Your task to perform on an android device: Search for pizza restaurants on Maps Image 0: 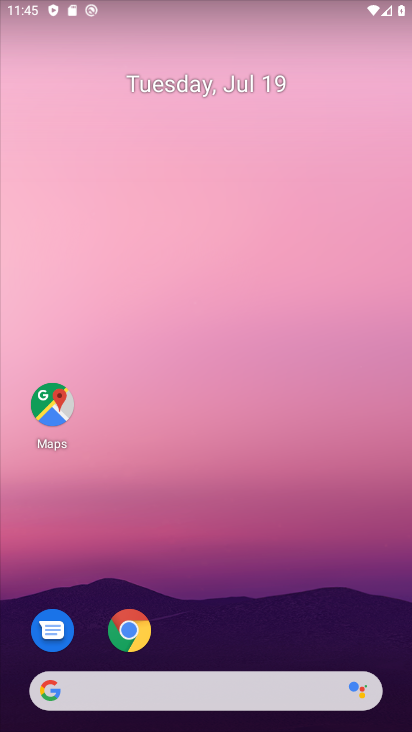
Step 0: drag from (141, 210) to (161, 344)
Your task to perform on an android device: Search for pizza restaurants on Maps Image 1: 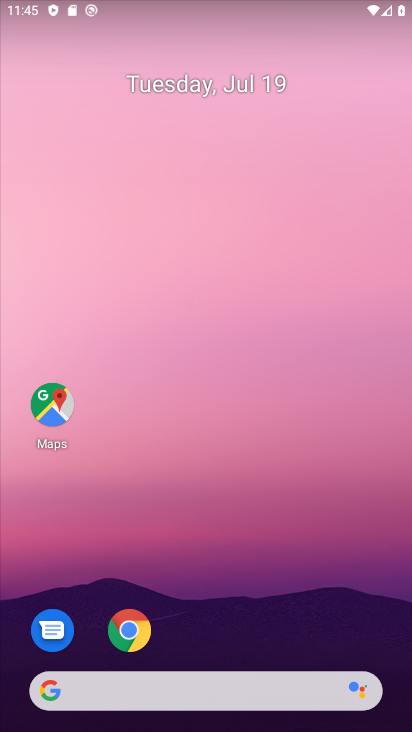
Step 1: drag from (247, 700) to (184, 269)
Your task to perform on an android device: Search for pizza restaurants on Maps Image 2: 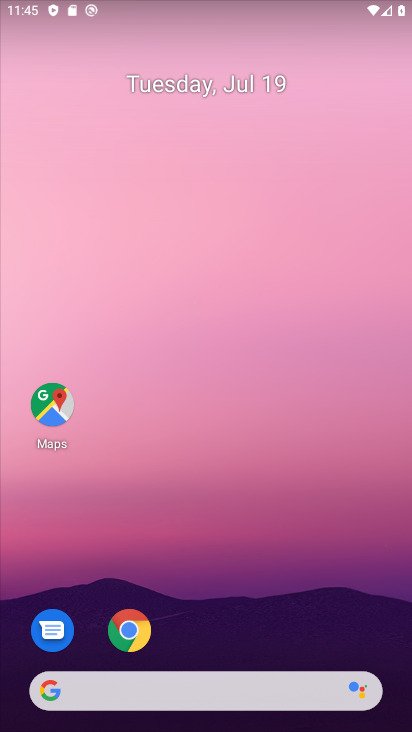
Step 2: drag from (197, 587) to (159, 261)
Your task to perform on an android device: Search for pizza restaurants on Maps Image 3: 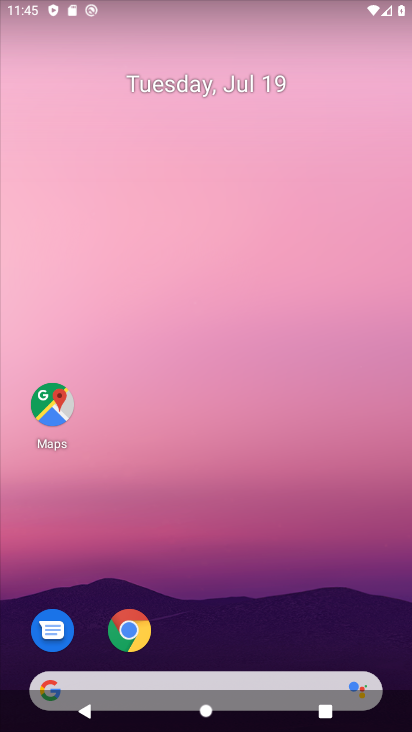
Step 3: drag from (211, 446) to (197, 33)
Your task to perform on an android device: Search for pizza restaurants on Maps Image 4: 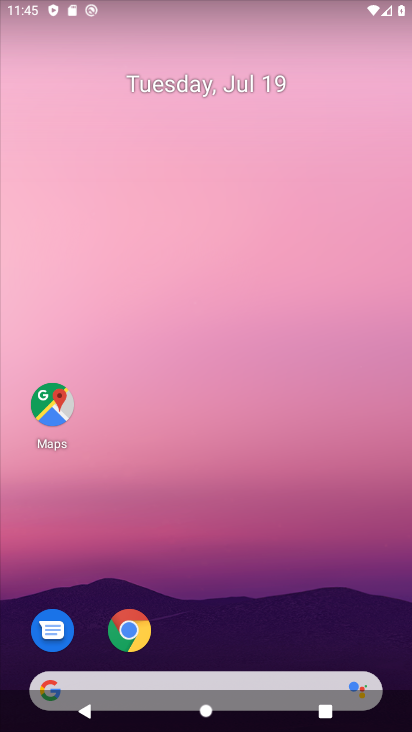
Step 4: drag from (308, 517) to (238, 79)
Your task to perform on an android device: Search for pizza restaurants on Maps Image 5: 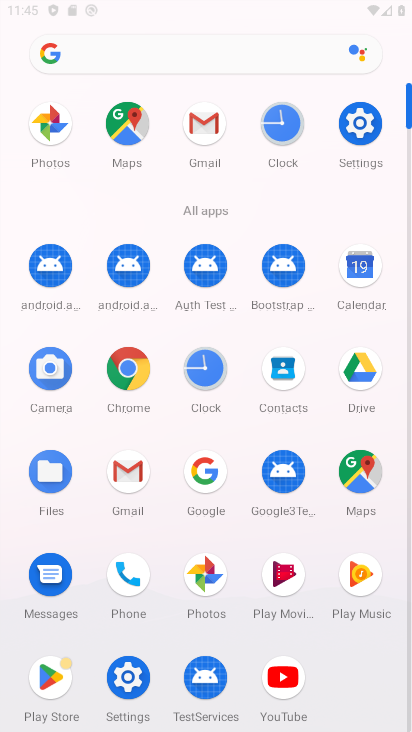
Step 5: drag from (183, 384) to (179, 139)
Your task to perform on an android device: Search for pizza restaurants on Maps Image 6: 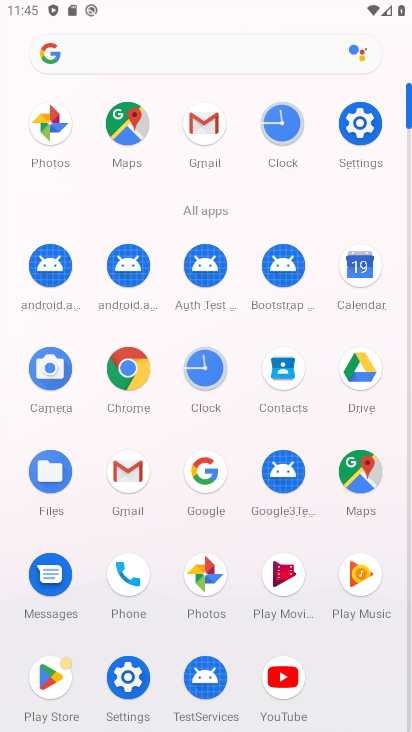
Step 6: drag from (193, 485) to (193, 200)
Your task to perform on an android device: Search for pizza restaurants on Maps Image 7: 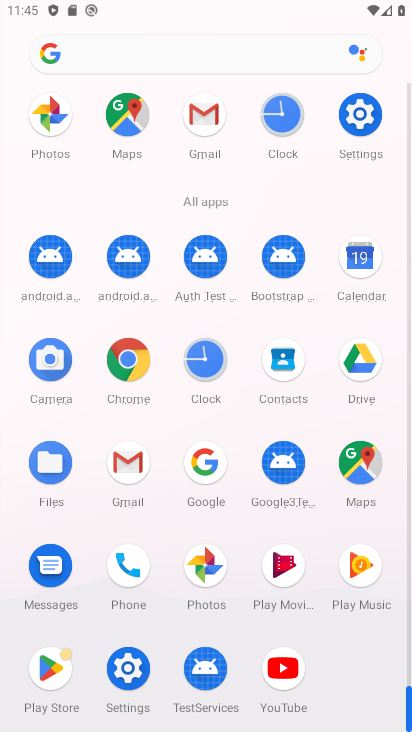
Step 7: click (361, 461)
Your task to perform on an android device: Search for pizza restaurants on Maps Image 8: 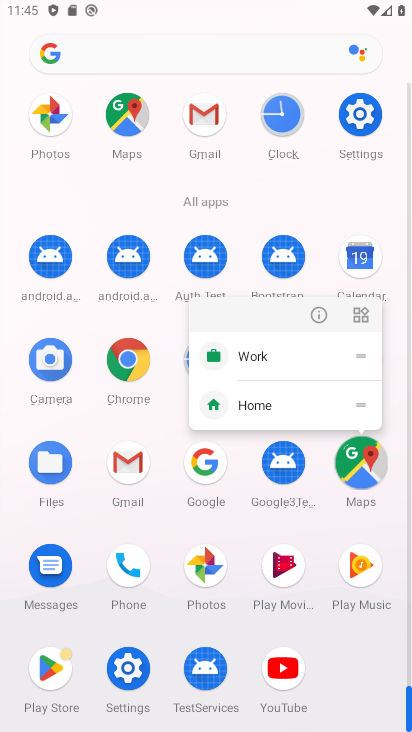
Step 8: click (363, 483)
Your task to perform on an android device: Search for pizza restaurants on Maps Image 9: 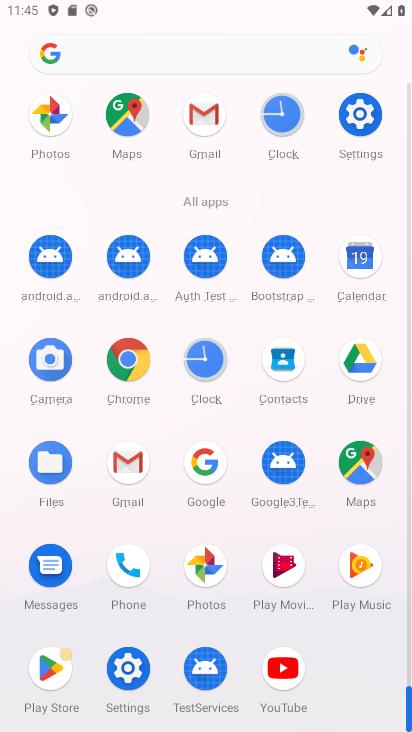
Step 9: click (364, 460)
Your task to perform on an android device: Search for pizza restaurants on Maps Image 10: 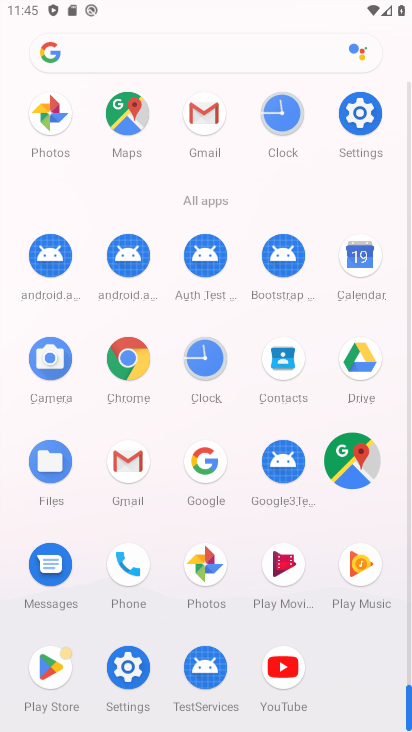
Step 10: click (365, 448)
Your task to perform on an android device: Search for pizza restaurants on Maps Image 11: 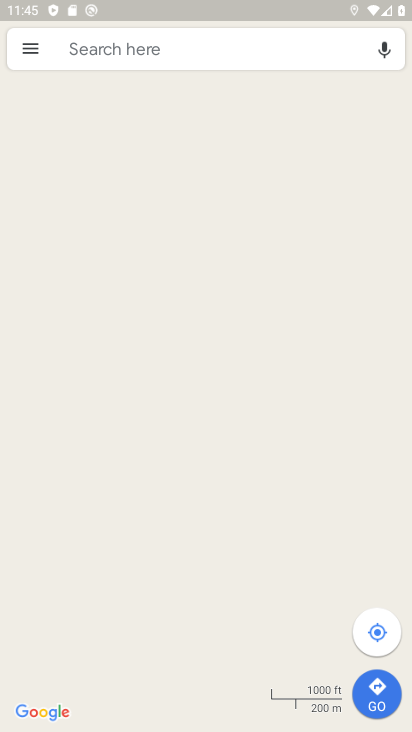
Step 11: click (83, 48)
Your task to perform on an android device: Search for pizza restaurants on Maps Image 12: 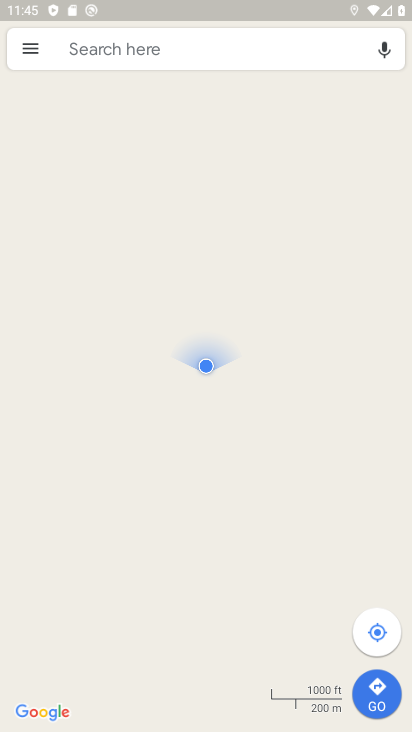
Step 12: click (90, 52)
Your task to perform on an android device: Search for pizza restaurants on Maps Image 13: 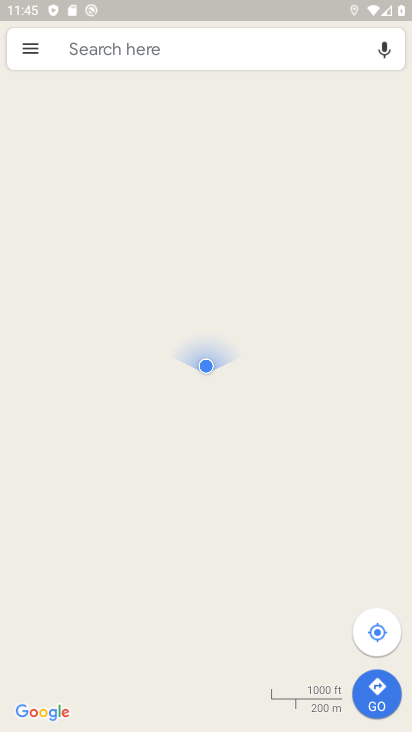
Step 13: click (99, 58)
Your task to perform on an android device: Search for pizza restaurants on Maps Image 14: 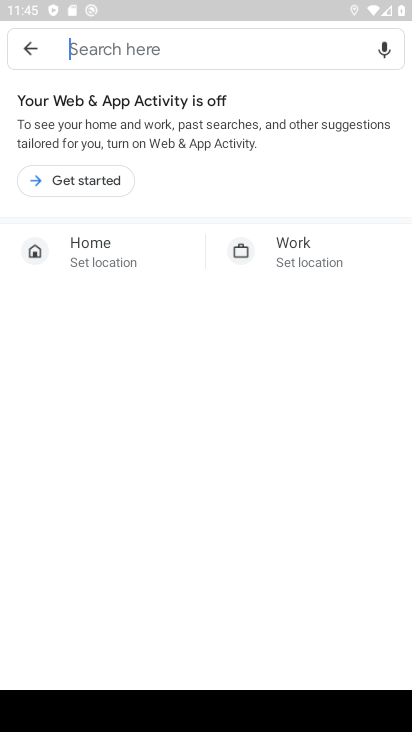
Step 14: type "pizza restaurants"
Your task to perform on an android device: Search for pizza restaurants on Maps Image 15: 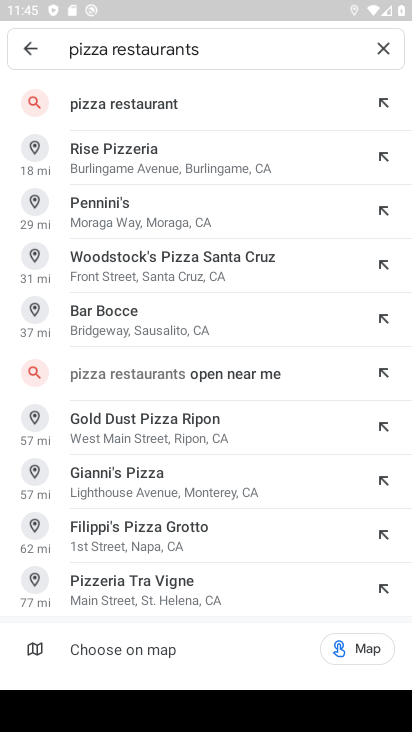
Step 15: click (120, 116)
Your task to perform on an android device: Search for pizza restaurants on Maps Image 16: 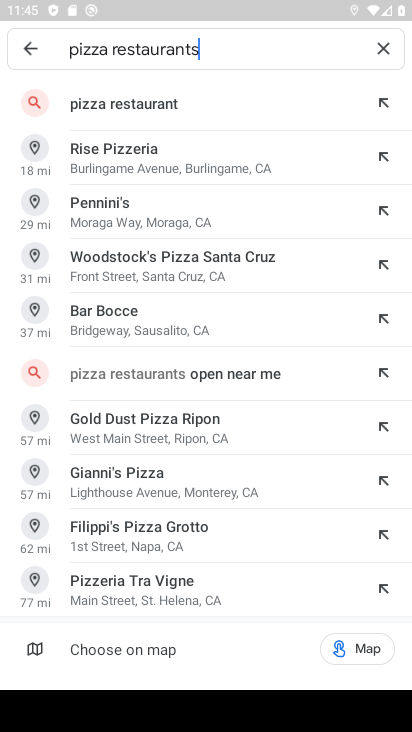
Step 16: click (125, 109)
Your task to perform on an android device: Search for pizza restaurants on Maps Image 17: 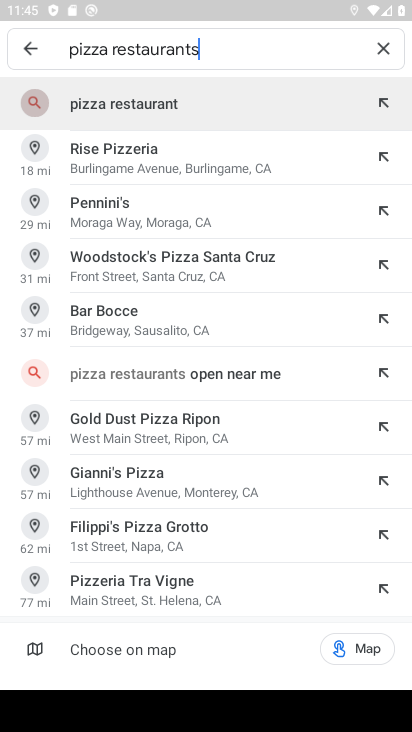
Step 17: click (129, 110)
Your task to perform on an android device: Search for pizza restaurants on Maps Image 18: 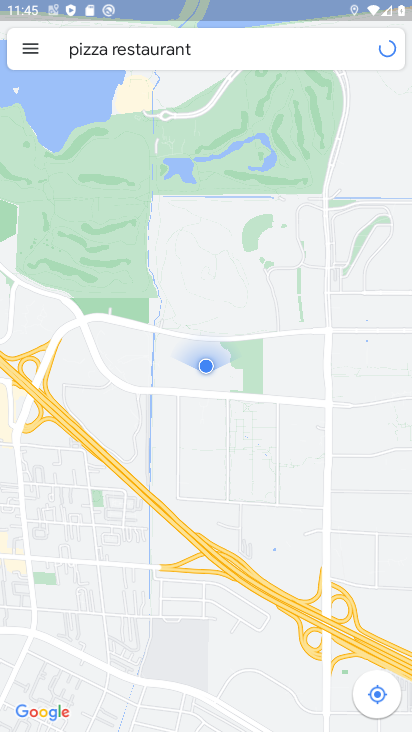
Step 18: click (378, 109)
Your task to perform on an android device: Search for pizza restaurants on Maps Image 19: 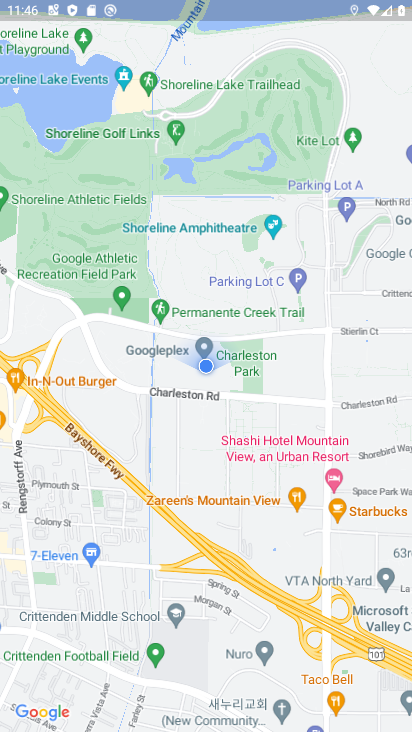
Step 19: task complete